Your task to perform on an android device: change timer sound Image 0: 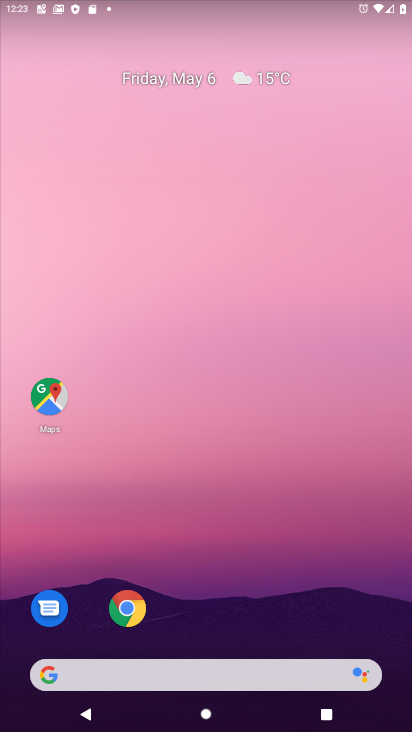
Step 0: drag from (288, 595) to (272, 87)
Your task to perform on an android device: change timer sound Image 1: 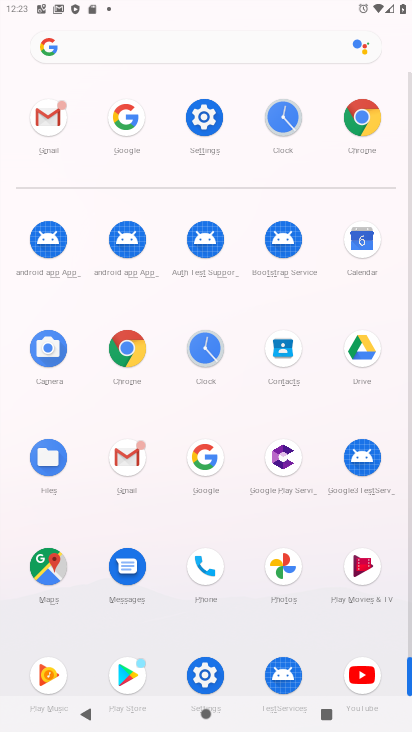
Step 1: click (216, 355)
Your task to perform on an android device: change timer sound Image 2: 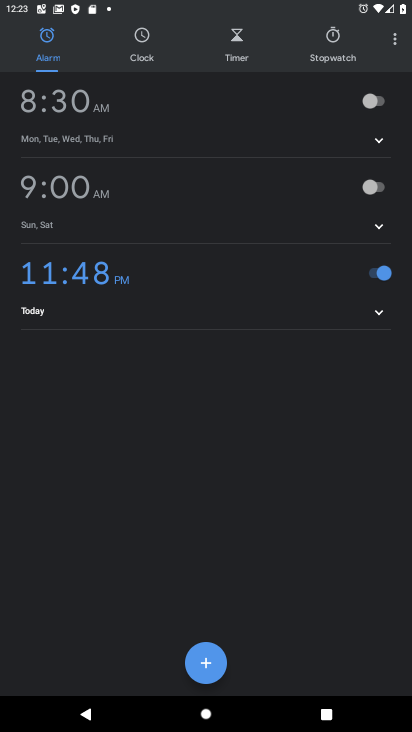
Step 2: click (397, 38)
Your task to perform on an android device: change timer sound Image 3: 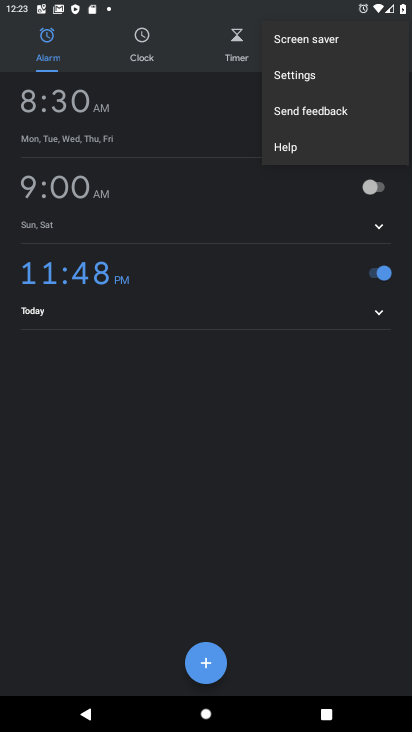
Step 3: click (305, 76)
Your task to perform on an android device: change timer sound Image 4: 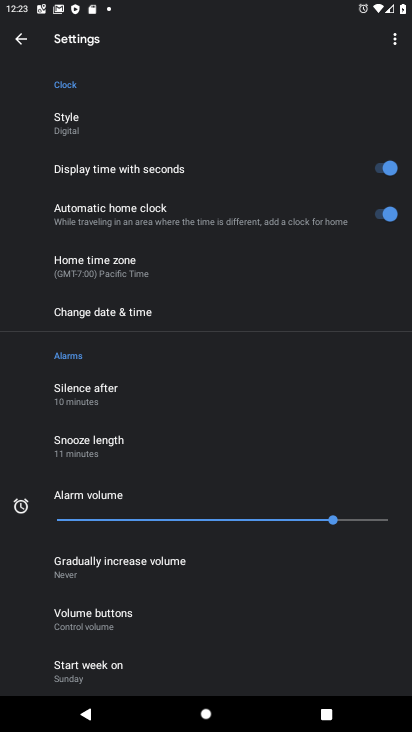
Step 4: drag from (177, 428) to (172, 166)
Your task to perform on an android device: change timer sound Image 5: 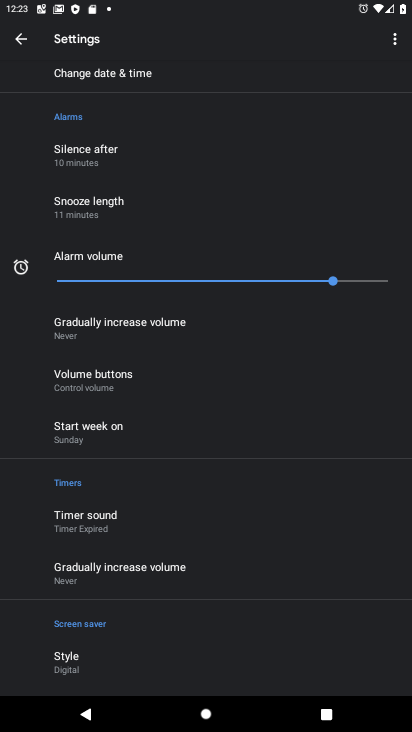
Step 5: click (131, 531)
Your task to perform on an android device: change timer sound Image 6: 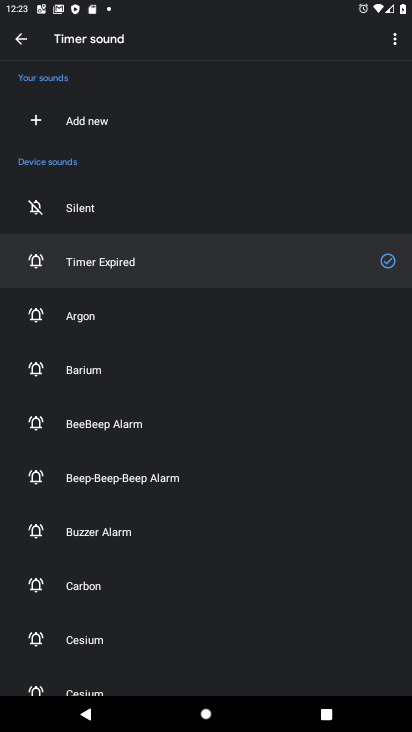
Step 6: click (220, 306)
Your task to perform on an android device: change timer sound Image 7: 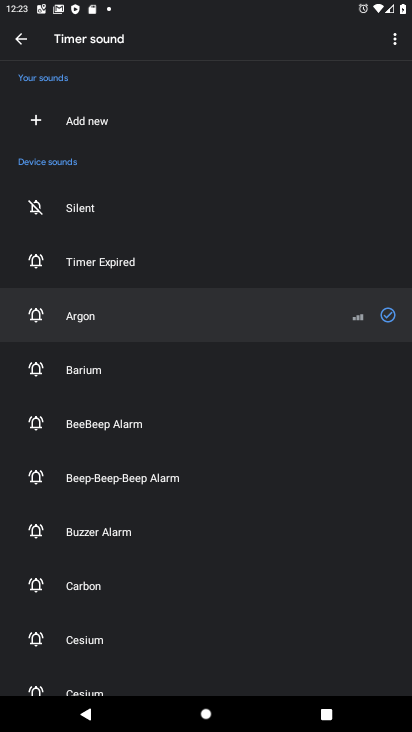
Step 7: task complete